Your task to perform on an android device: Search for Italian restaurants on Maps Image 0: 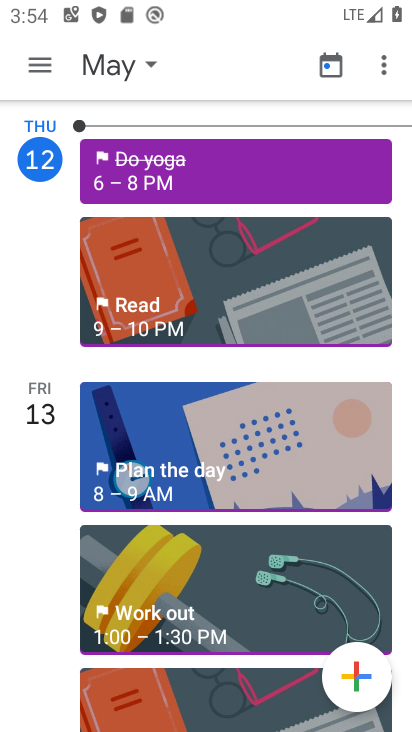
Step 0: press home button
Your task to perform on an android device: Search for Italian restaurants on Maps Image 1: 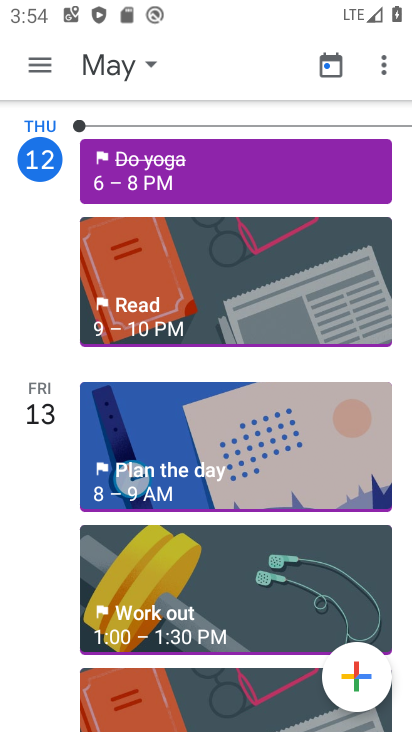
Step 1: press home button
Your task to perform on an android device: Search for Italian restaurants on Maps Image 2: 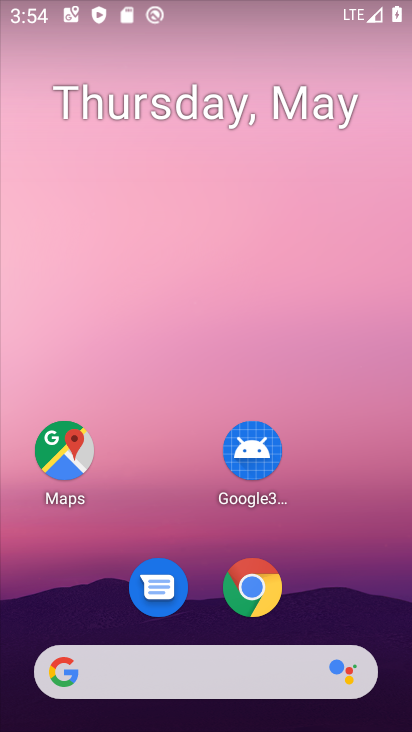
Step 2: drag from (295, 563) to (199, 116)
Your task to perform on an android device: Search for Italian restaurants on Maps Image 3: 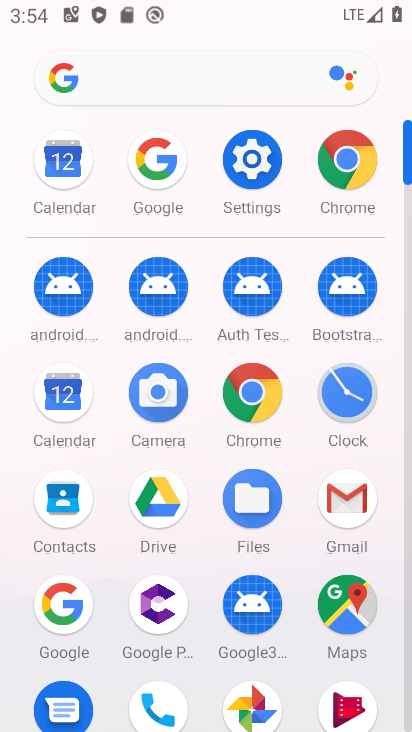
Step 3: click (338, 651)
Your task to perform on an android device: Search for Italian restaurants on Maps Image 4: 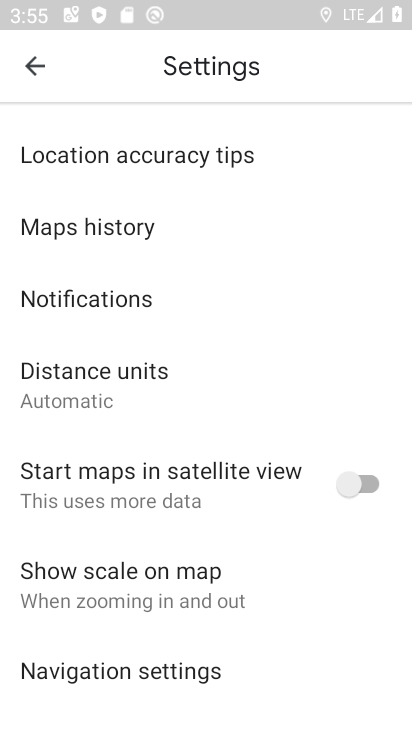
Step 4: drag from (173, 197) to (171, 354)
Your task to perform on an android device: Search for Italian restaurants on Maps Image 5: 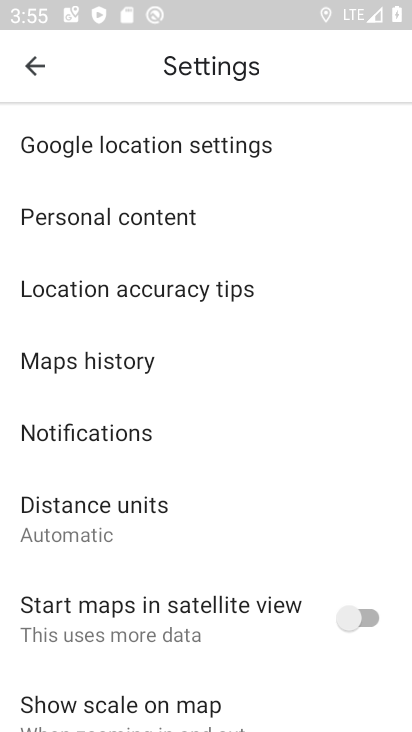
Step 5: click (43, 90)
Your task to perform on an android device: Search for Italian restaurants on Maps Image 6: 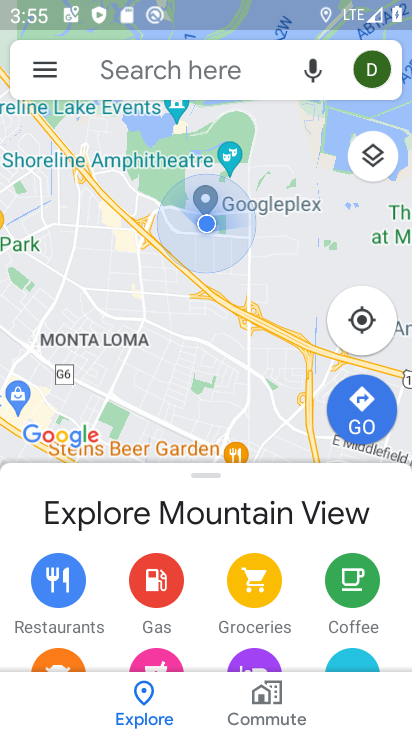
Step 6: click (121, 51)
Your task to perform on an android device: Search for Italian restaurants on Maps Image 7: 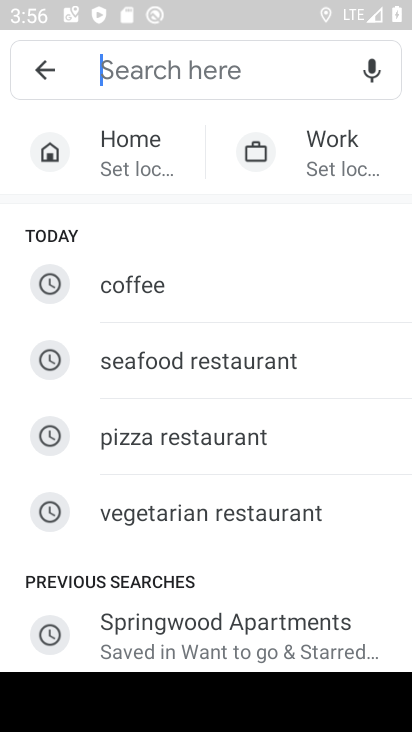
Step 7: drag from (247, 520) to (169, 233)
Your task to perform on an android device: Search for Italian restaurants on Maps Image 8: 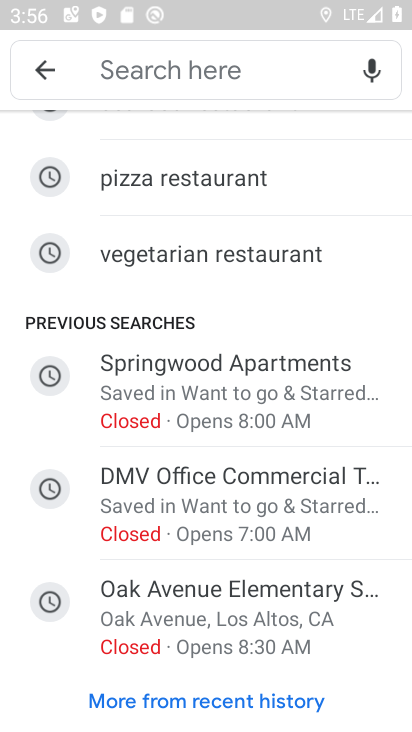
Step 8: click (158, 59)
Your task to perform on an android device: Search for Italian restaurants on Maps Image 9: 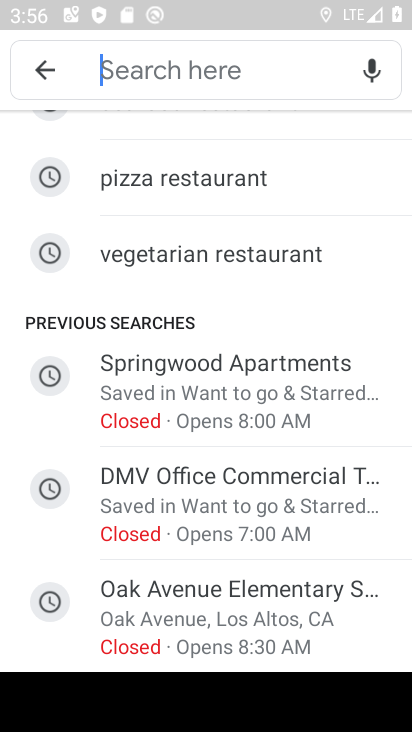
Step 9: type "italian"
Your task to perform on an android device: Search for Italian restaurants on Maps Image 10: 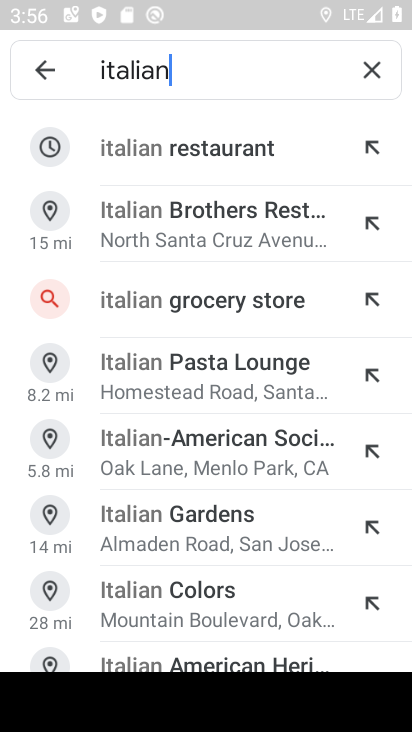
Step 10: click (116, 158)
Your task to perform on an android device: Search for Italian restaurants on Maps Image 11: 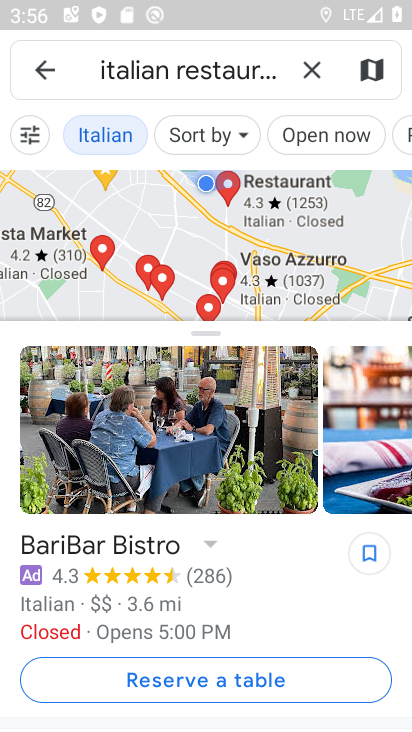
Step 11: task complete